Your task to perform on an android device: Go to settings Image 0: 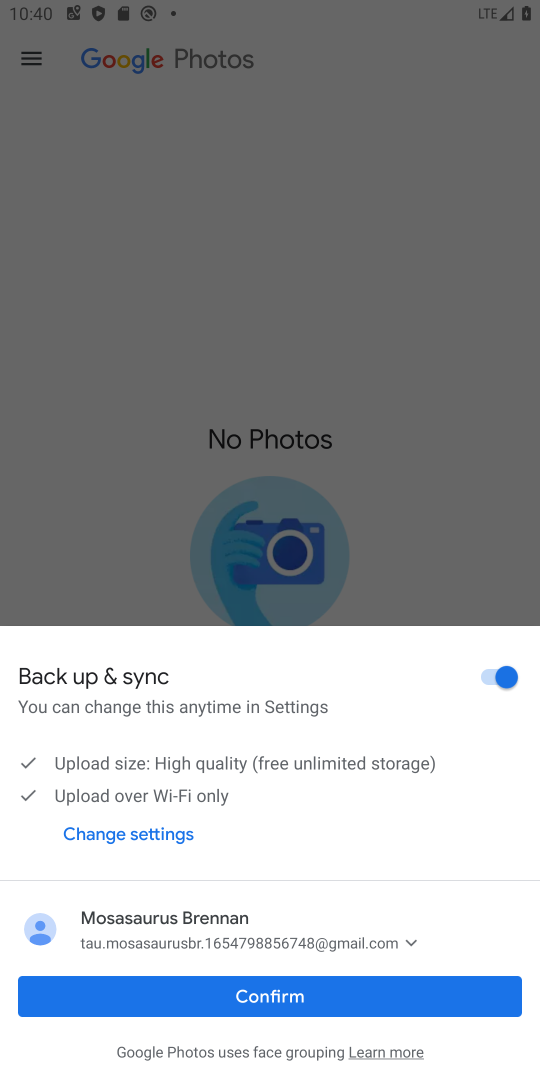
Step 0: press home button
Your task to perform on an android device: Go to settings Image 1: 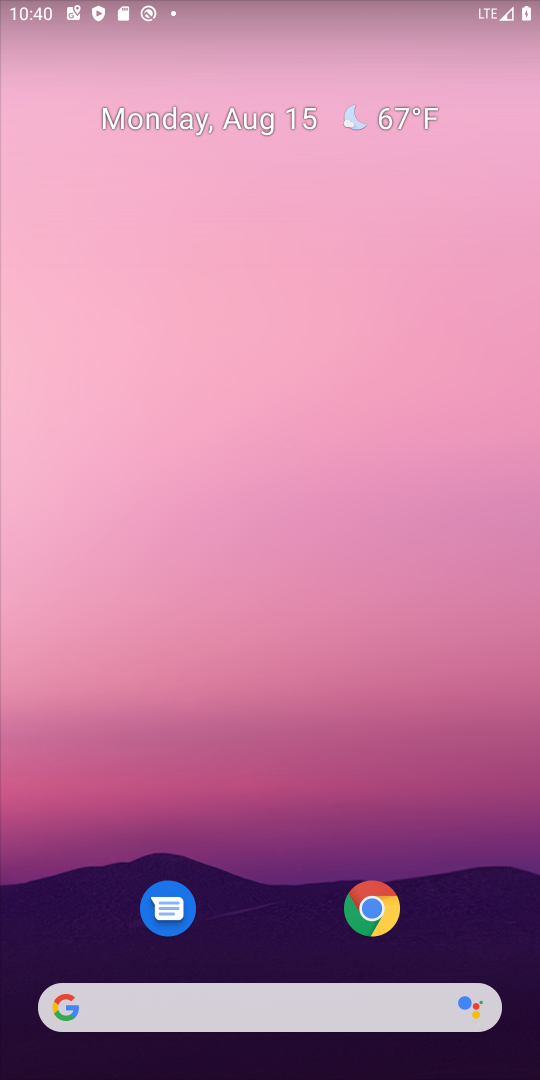
Step 1: drag from (257, 921) to (274, 92)
Your task to perform on an android device: Go to settings Image 2: 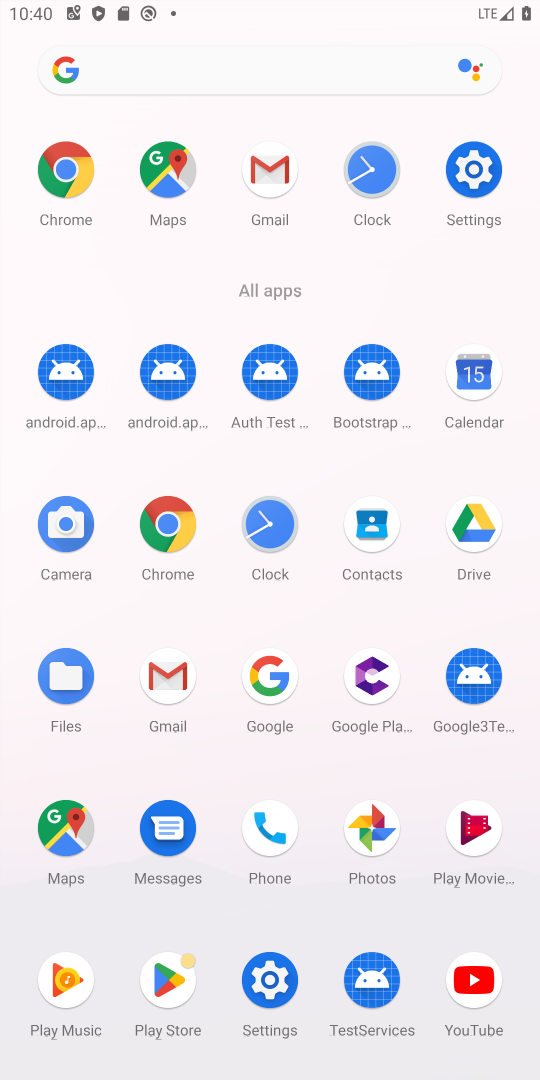
Step 2: click (464, 176)
Your task to perform on an android device: Go to settings Image 3: 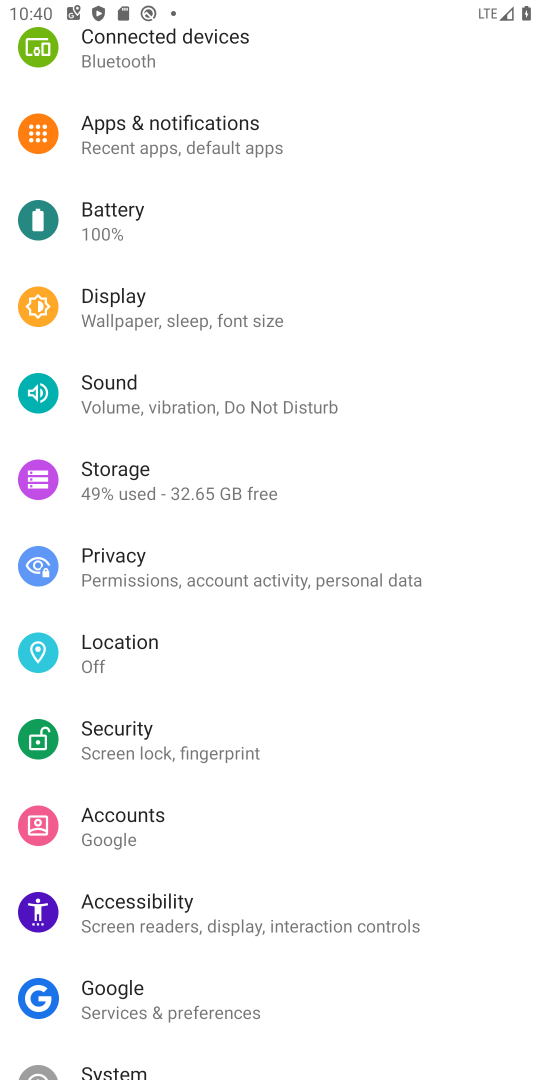
Step 3: task complete